Your task to perform on an android device: manage bookmarks in the chrome app Image 0: 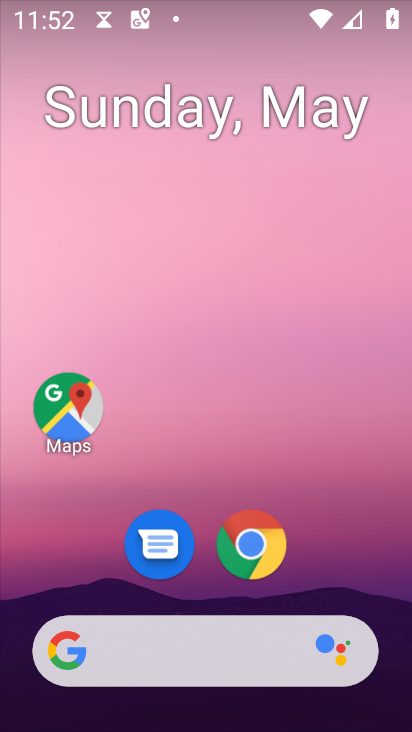
Step 0: click (253, 549)
Your task to perform on an android device: manage bookmarks in the chrome app Image 1: 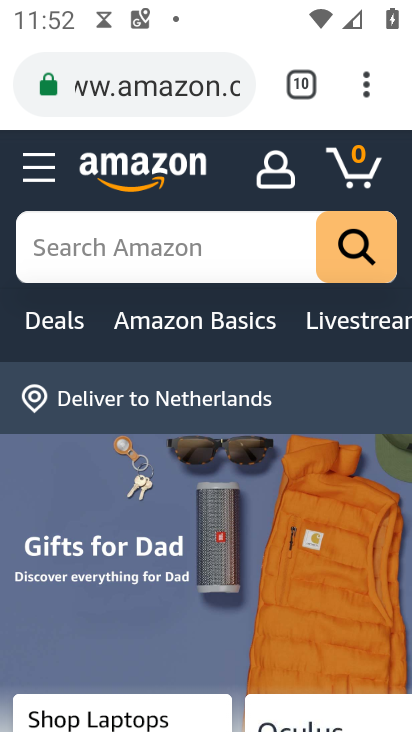
Step 1: click (363, 89)
Your task to perform on an android device: manage bookmarks in the chrome app Image 2: 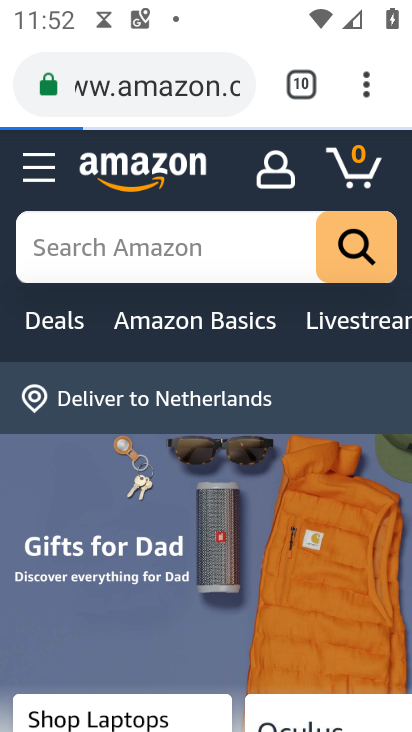
Step 2: click (363, 89)
Your task to perform on an android device: manage bookmarks in the chrome app Image 3: 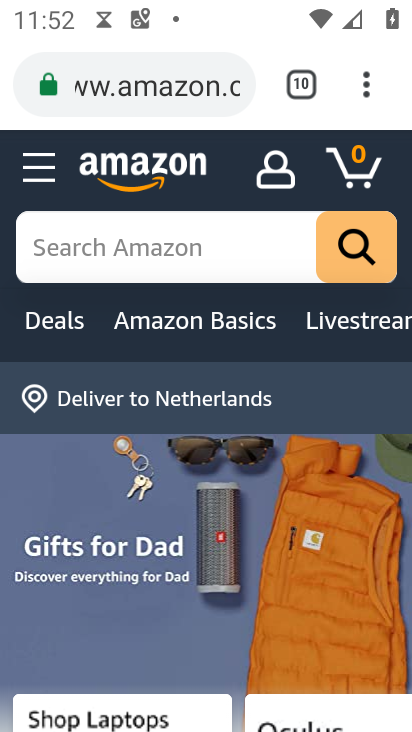
Step 3: click (352, 83)
Your task to perform on an android device: manage bookmarks in the chrome app Image 4: 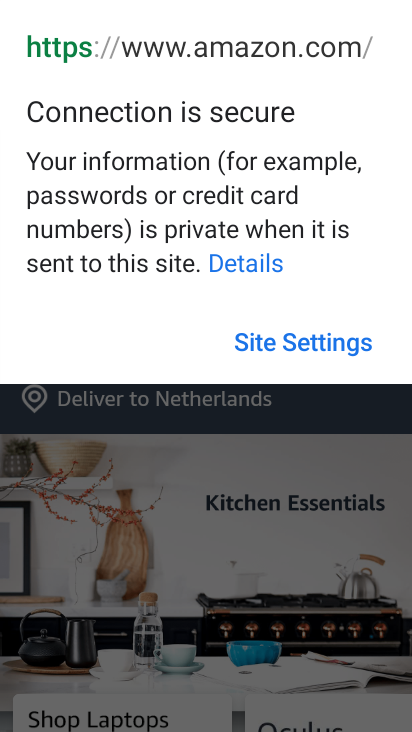
Step 4: press back button
Your task to perform on an android device: manage bookmarks in the chrome app Image 5: 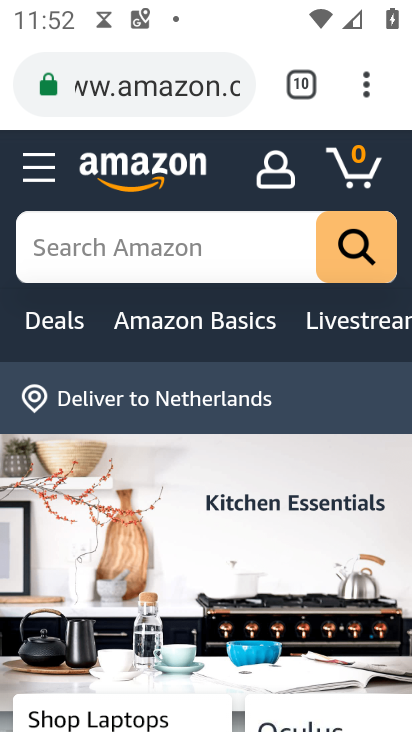
Step 5: click (368, 86)
Your task to perform on an android device: manage bookmarks in the chrome app Image 6: 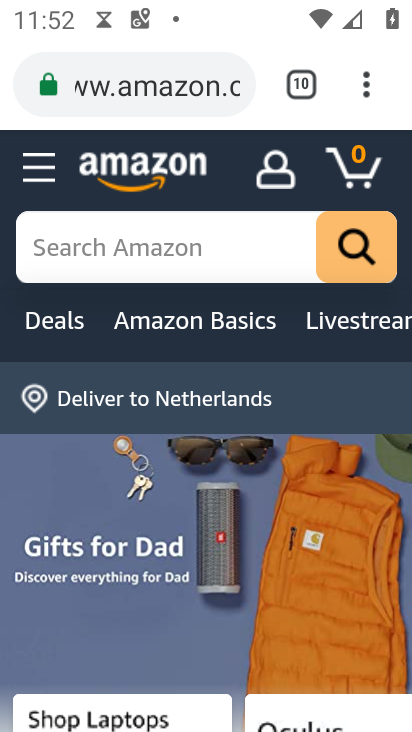
Step 6: click (372, 70)
Your task to perform on an android device: manage bookmarks in the chrome app Image 7: 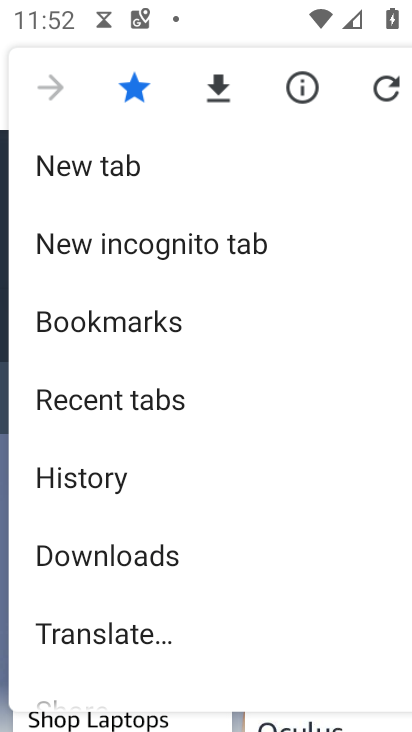
Step 7: drag from (247, 621) to (250, 552)
Your task to perform on an android device: manage bookmarks in the chrome app Image 8: 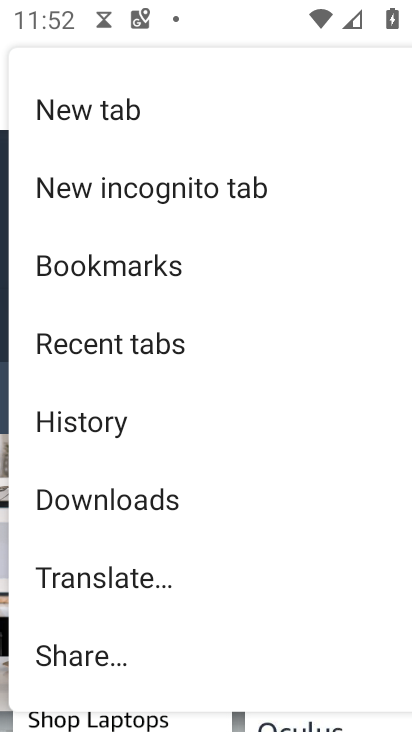
Step 8: click (156, 270)
Your task to perform on an android device: manage bookmarks in the chrome app Image 9: 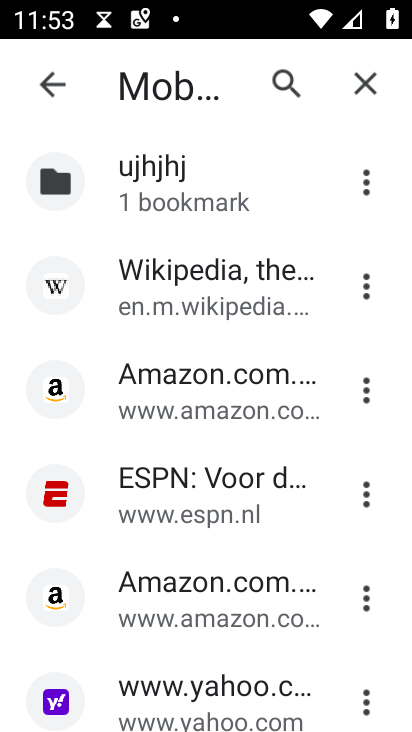
Step 9: click (124, 273)
Your task to perform on an android device: manage bookmarks in the chrome app Image 10: 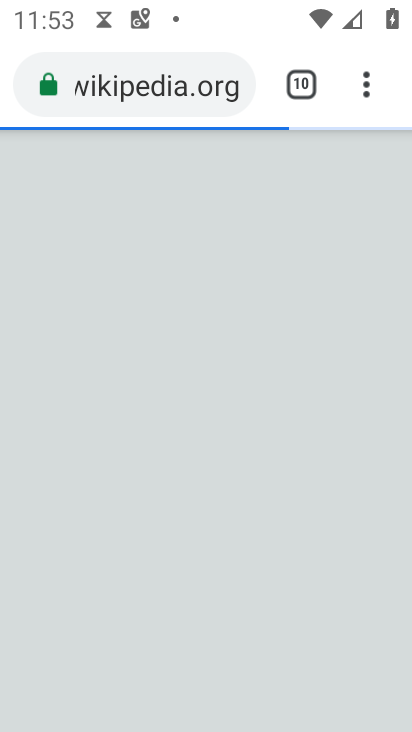
Step 10: click (99, 276)
Your task to perform on an android device: manage bookmarks in the chrome app Image 11: 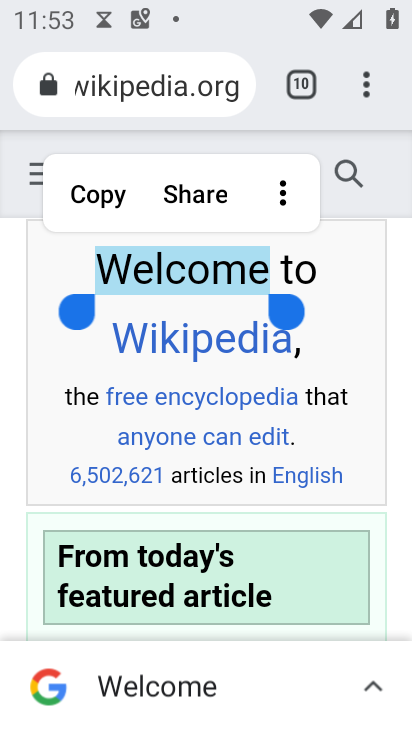
Step 11: click (361, 87)
Your task to perform on an android device: manage bookmarks in the chrome app Image 12: 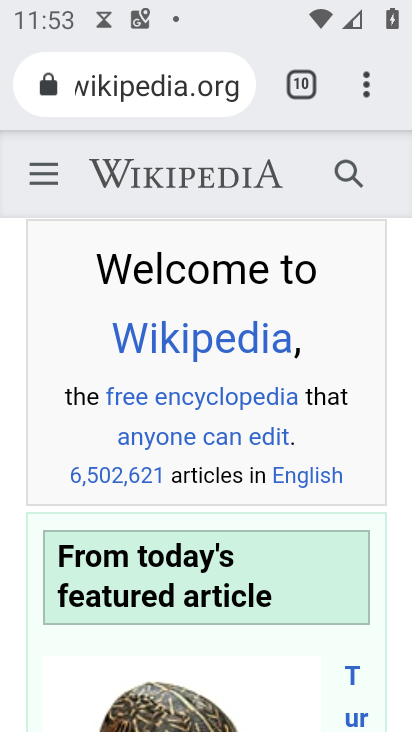
Step 12: click (364, 71)
Your task to perform on an android device: manage bookmarks in the chrome app Image 13: 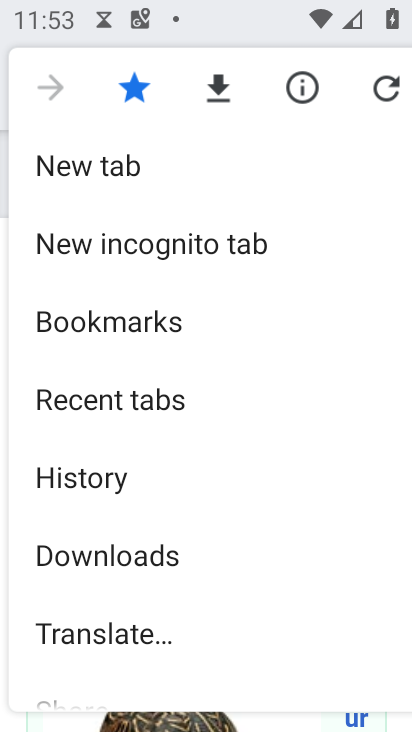
Step 13: click (101, 158)
Your task to perform on an android device: manage bookmarks in the chrome app Image 14: 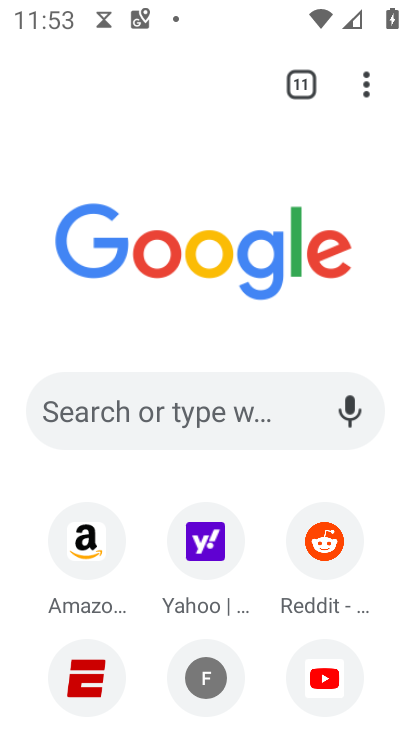
Step 14: click (381, 69)
Your task to perform on an android device: manage bookmarks in the chrome app Image 15: 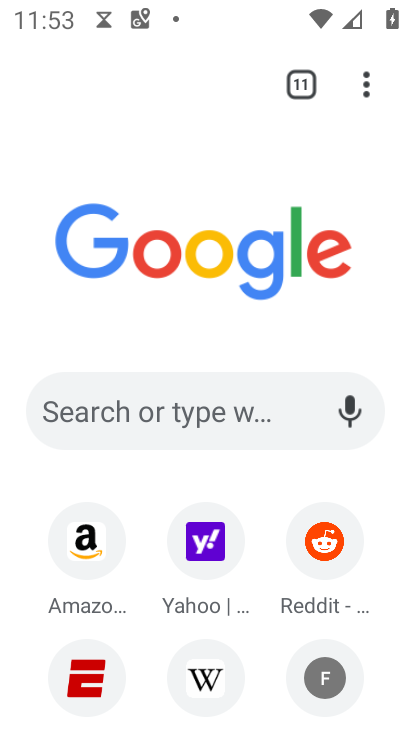
Step 15: click (358, 78)
Your task to perform on an android device: manage bookmarks in the chrome app Image 16: 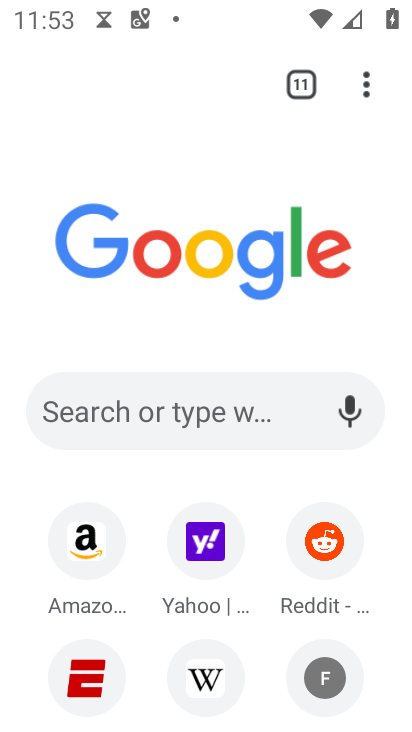
Step 16: click (375, 85)
Your task to perform on an android device: manage bookmarks in the chrome app Image 17: 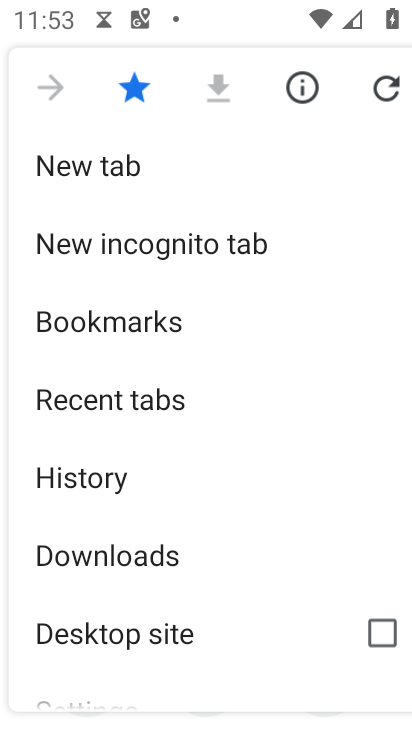
Step 17: click (131, 312)
Your task to perform on an android device: manage bookmarks in the chrome app Image 18: 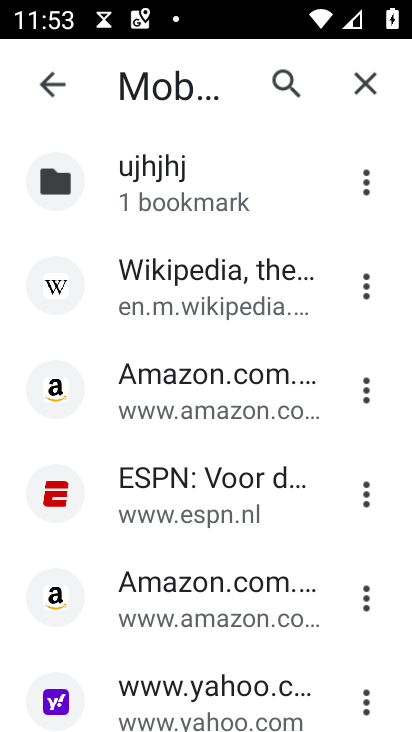
Step 18: click (139, 495)
Your task to perform on an android device: manage bookmarks in the chrome app Image 19: 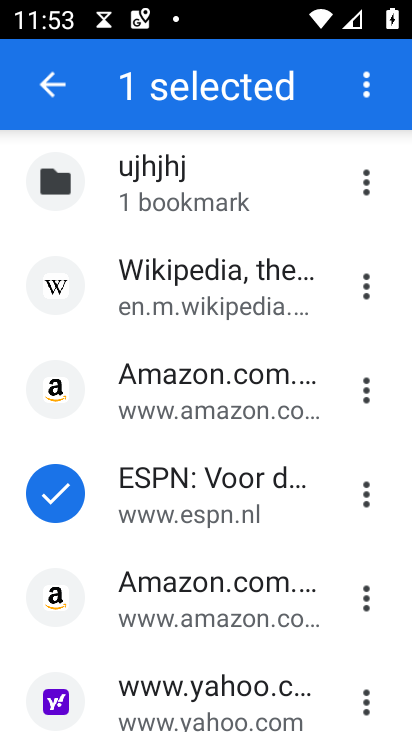
Step 19: click (363, 90)
Your task to perform on an android device: manage bookmarks in the chrome app Image 20: 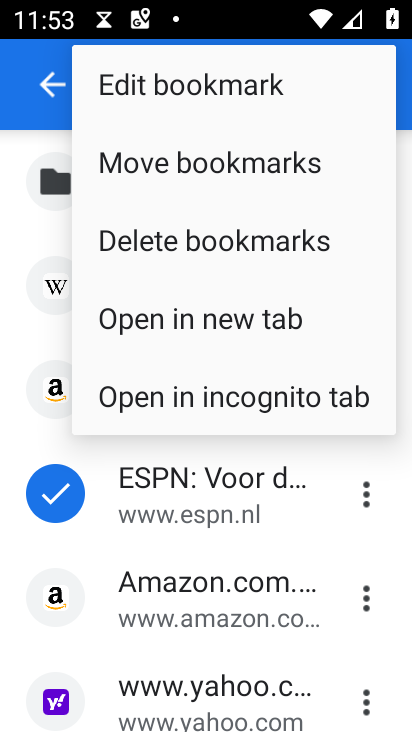
Step 20: click (199, 175)
Your task to perform on an android device: manage bookmarks in the chrome app Image 21: 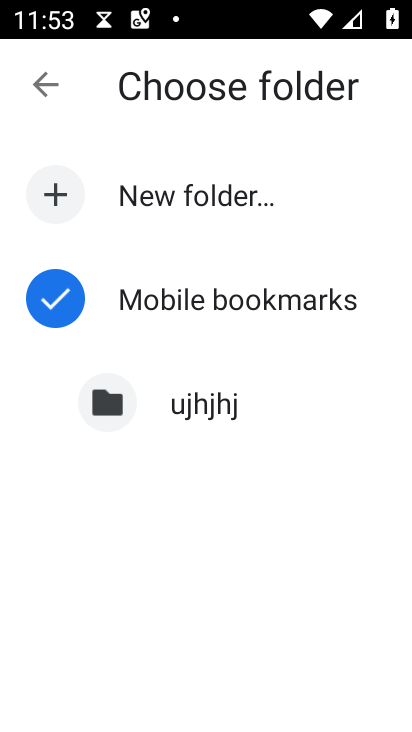
Step 21: click (131, 195)
Your task to perform on an android device: manage bookmarks in the chrome app Image 22: 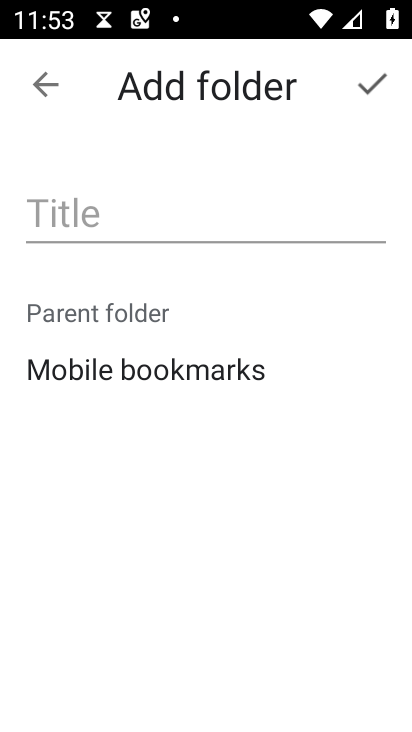
Step 22: click (159, 387)
Your task to perform on an android device: manage bookmarks in the chrome app Image 23: 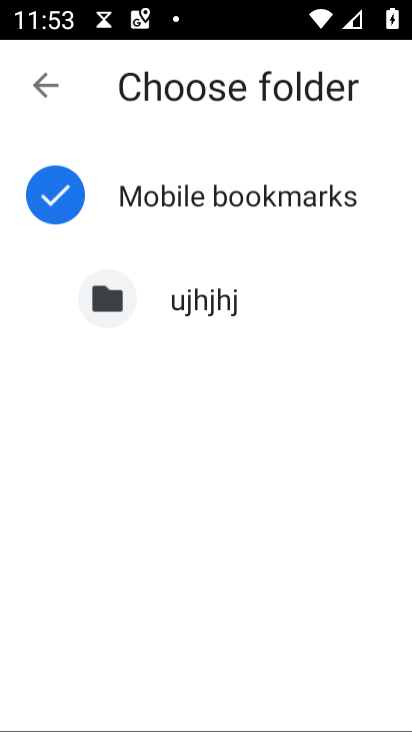
Step 23: click (163, 198)
Your task to perform on an android device: manage bookmarks in the chrome app Image 24: 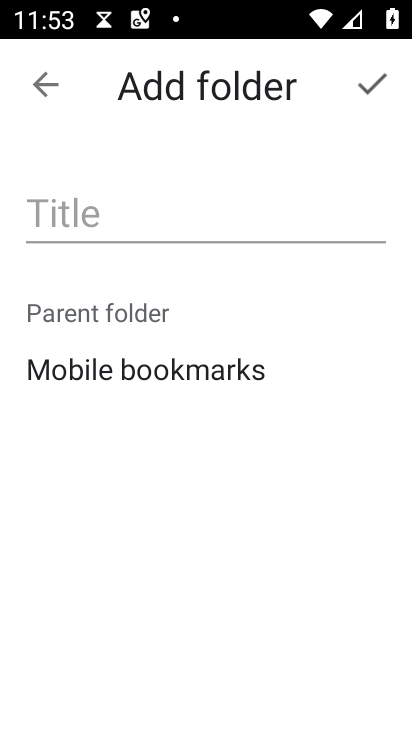
Step 24: click (56, 74)
Your task to perform on an android device: manage bookmarks in the chrome app Image 25: 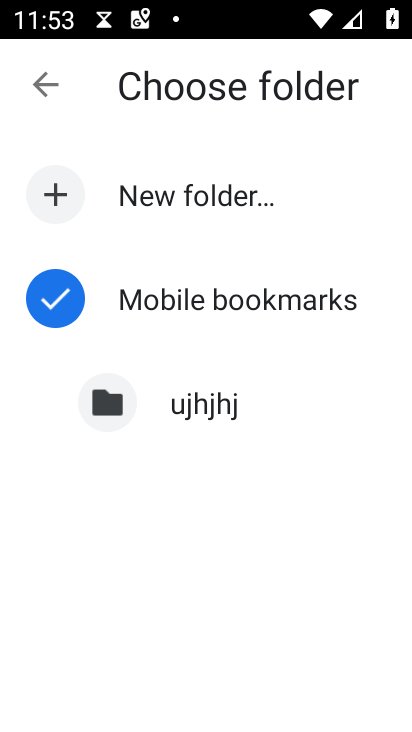
Step 25: click (222, 371)
Your task to perform on an android device: manage bookmarks in the chrome app Image 26: 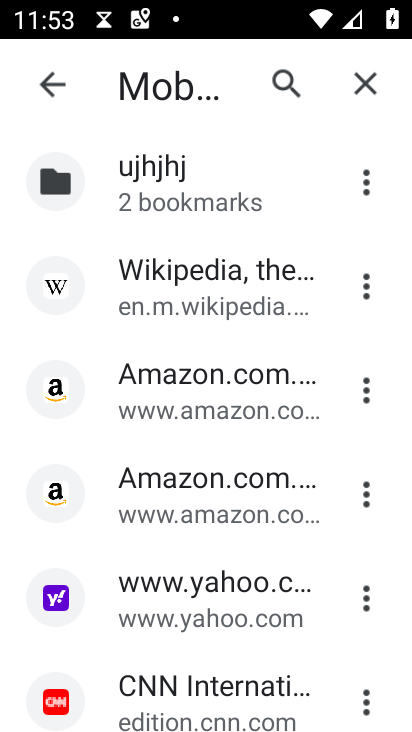
Step 26: type "hjhgh"
Your task to perform on an android device: manage bookmarks in the chrome app Image 27: 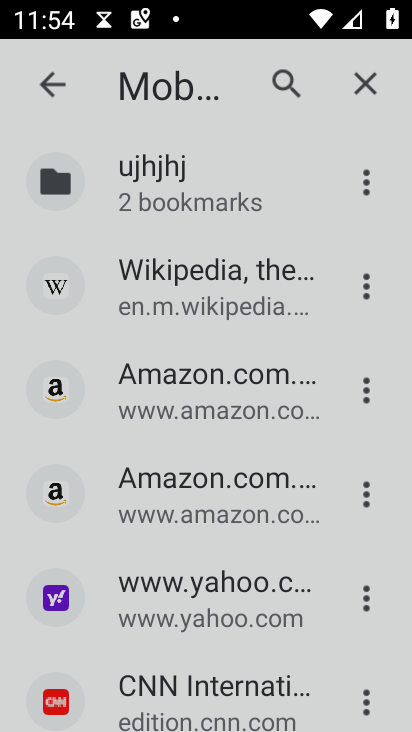
Step 27: task complete